Your task to perform on an android device: check storage Image 0: 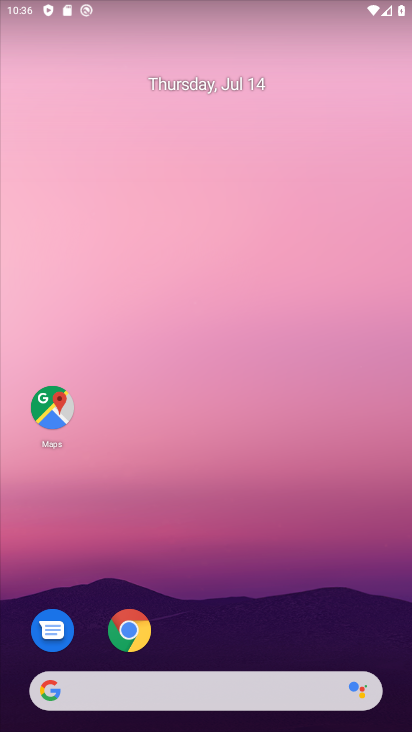
Step 0: drag from (177, 537) to (181, 80)
Your task to perform on an android device: check storage Image 1: 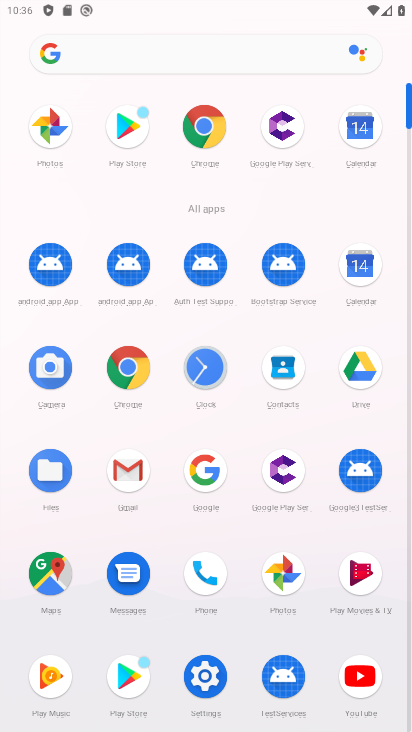
Step 1: click (209, 124)
Your task to perform on an android device: check storage Image 2: 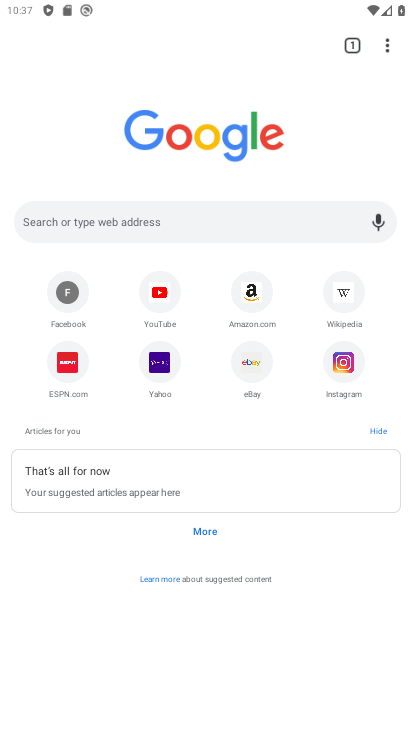
Step 2: click (56, 354)
Your task to perform on an android device: check storage Image 3: 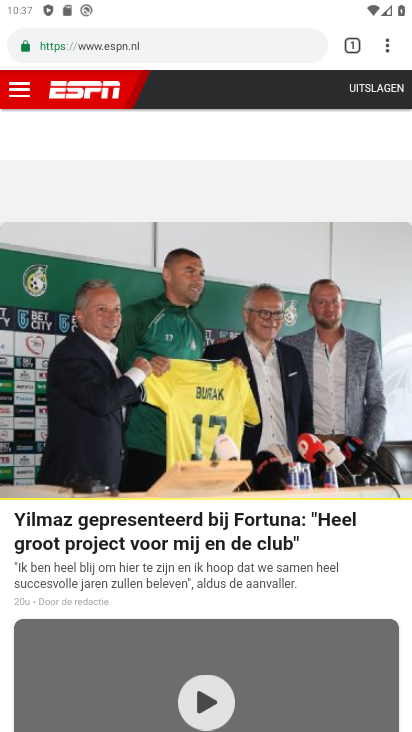
Step 3: press home button
Your task to perform on an android device: check storage Image 4: 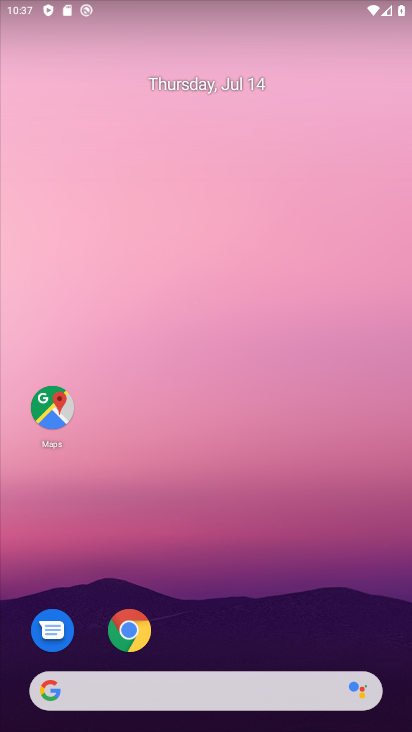
Step 4: drag from (185, 592) to (230, 203)
Your task to perform on an android device: check storage Image 5: 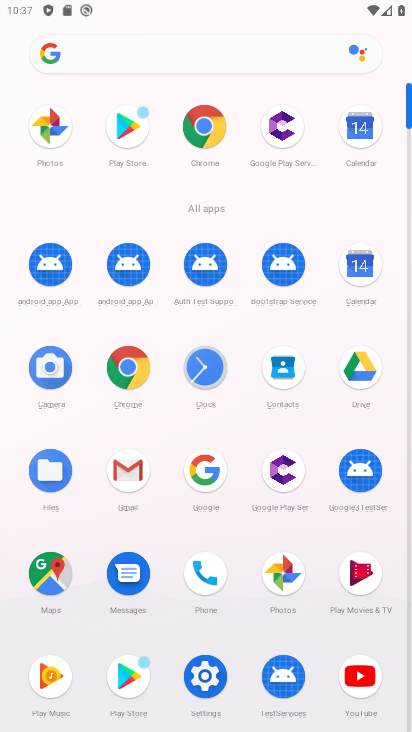
Step 5: click (208, 654)
Your task to perform on an android device: check storage Image 6: 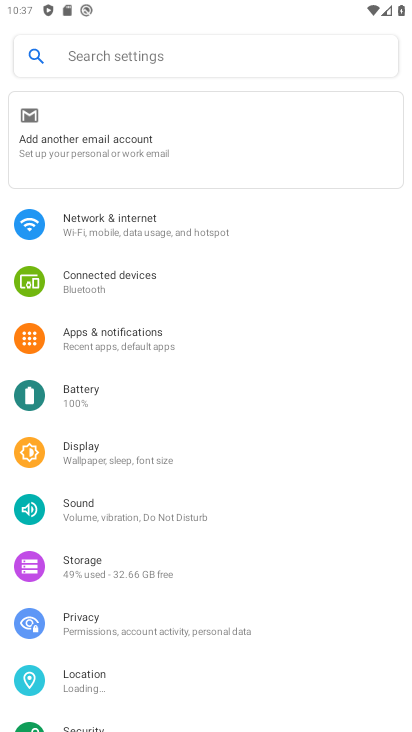
Step 6: drag from (179, 615) to (180, 210)
Your task to perform on an android device: check storage Image 7: 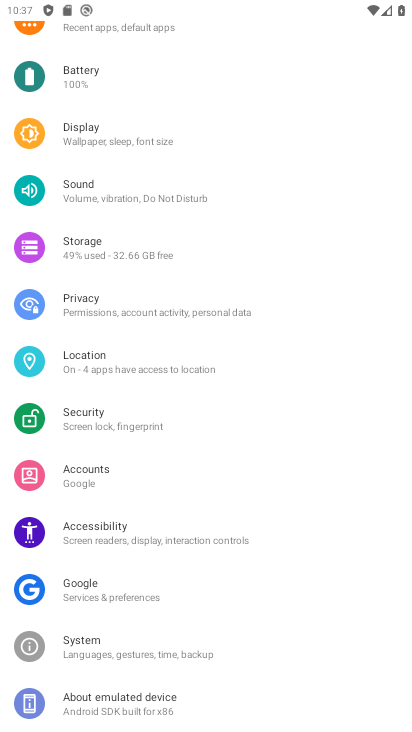
Step 7: click (104, 244)
Your task to perform on an android device: check storage Image 8: 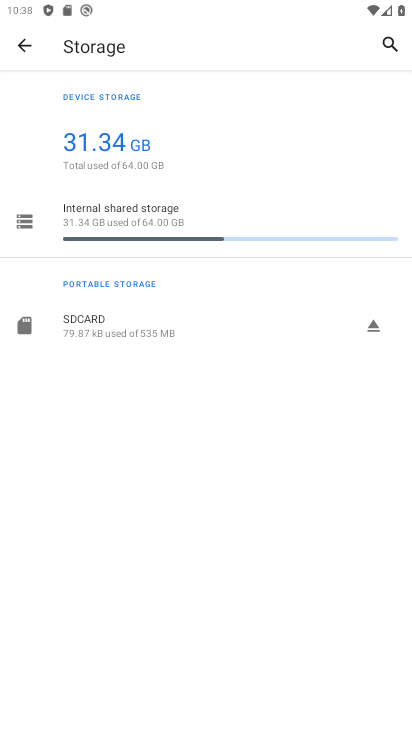
Step 8: task complete